Your task to perform on an android device: turn pop-ups off in chrome Image 0: 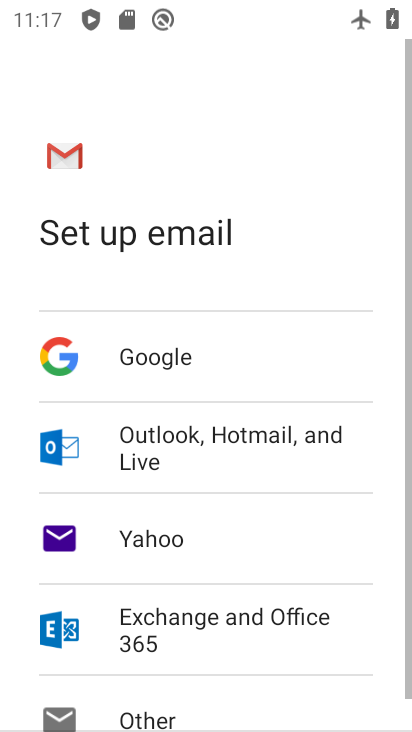
Step 0: press home button
Your task to perform on an android device: turn pop-ups off in chrome Image 1: 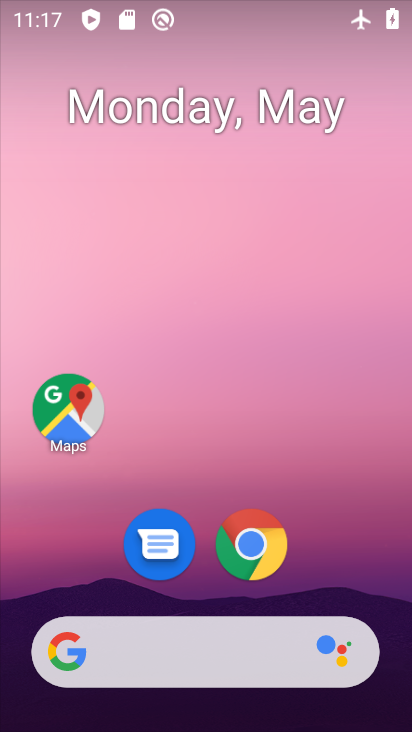
Step 1: drag from (359, 564) to (358, 74)
Your task to perform on an android device: turn pop-ups off in chrome Image 2: 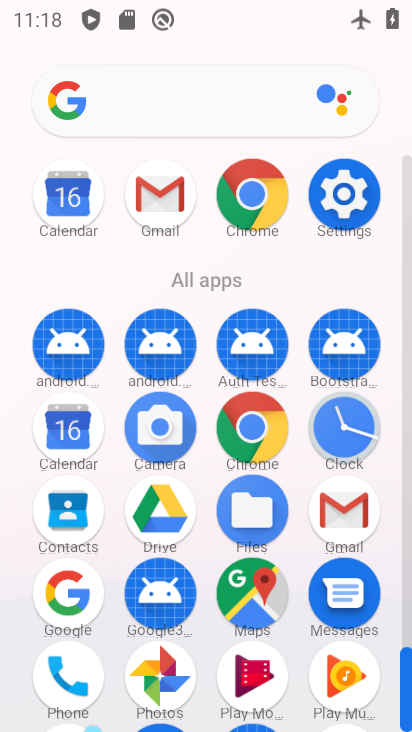
Step 2: click (272, 426)
Your task to perform on an android device: turn pop-ups off in chrome Image 3: 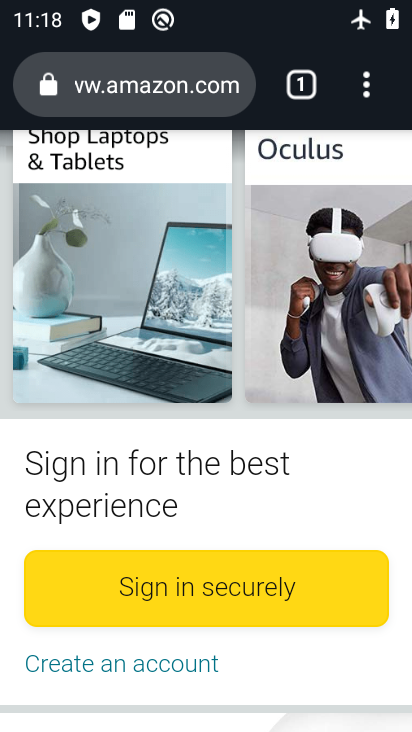
Step 3: drag from (359, 86) to (167, 602)
Your task to perform on an android device: turn pop-ups off in chrome Image 4: 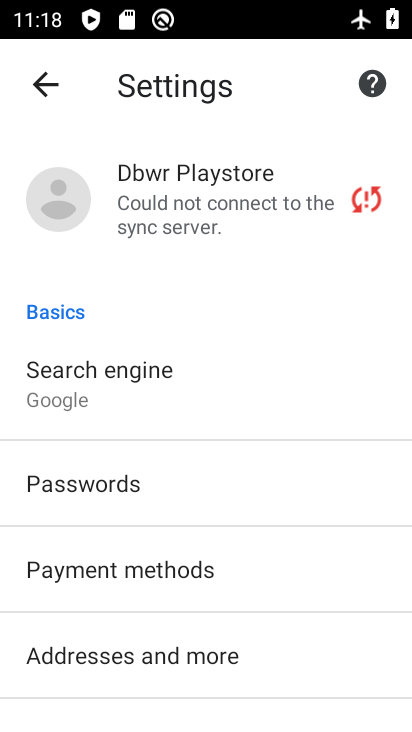
Step 4: drag from (246, 623) to (249, 319)
Your task to perform on an android device: turn pop-ups off in chrome Image 5: 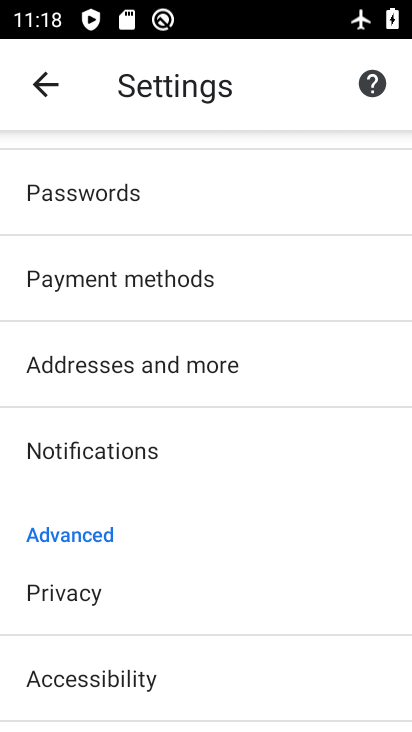
Step 5: drag from (244, 596) to (327, 280)
Your task to perform on an android device: turn pop-ups off in chrome Image 6: 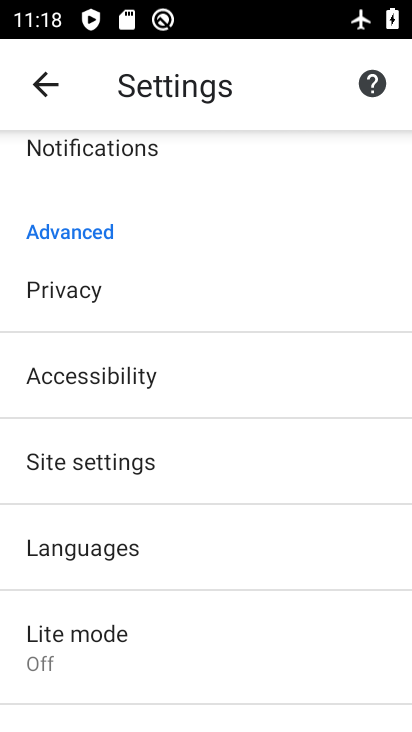
Step 6: drag from (196, 645) to (237, 347)
Your task to perform on an android device: turn pop-ups off in chrome Image 7: 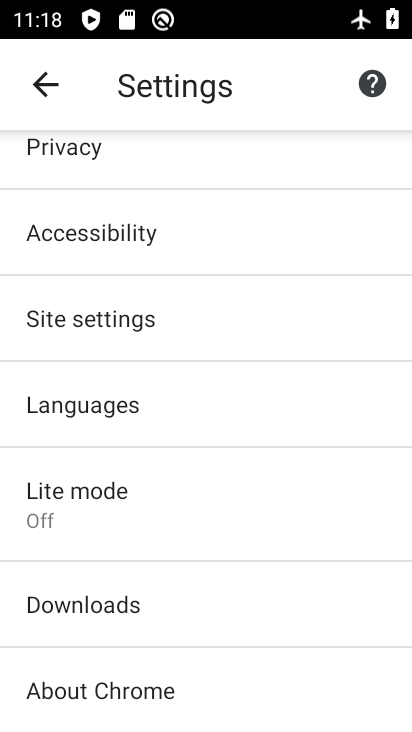
Step 7: click (117, 335)
Your task to perform on an android device: turn pop-ups off in chrome Image 8: 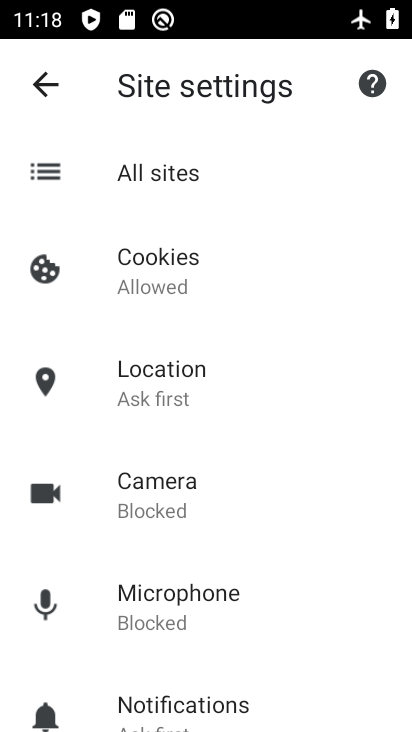
Step 8: drag from (279, 652) to (305, 311)
Your task to perform on an android device: turn pop-ups off in chrome Image 9: 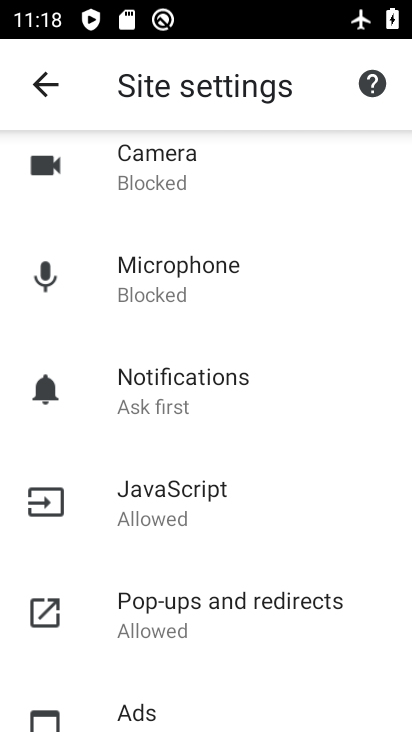
Step 9: click (282, 602)
Your task to perform on an android device: turn pop-ups off in chrome Image 10: 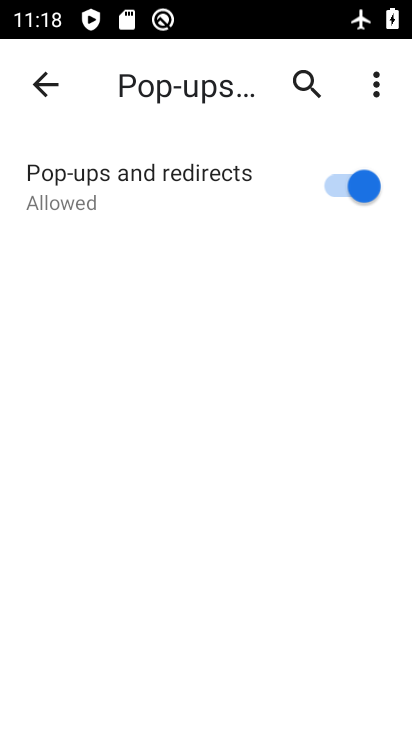
Step 10: click (331, 180)
Your task to perform on an android device: turn pop-ups off in chrome Image 11: 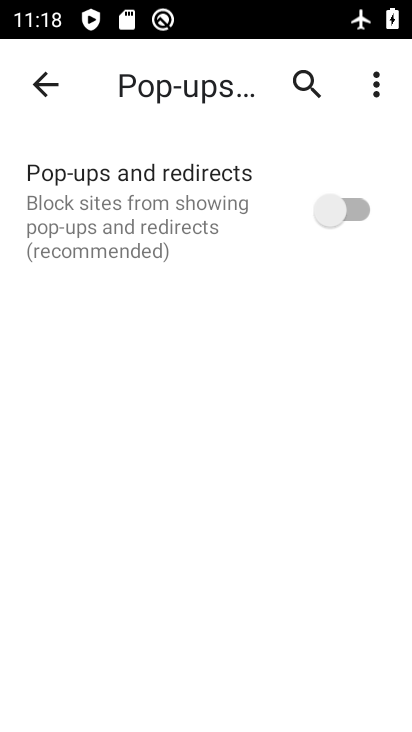
Step 11: task complete